Your task to perform on an android device: Open Google Maps and go to "Timeline" Image 0: 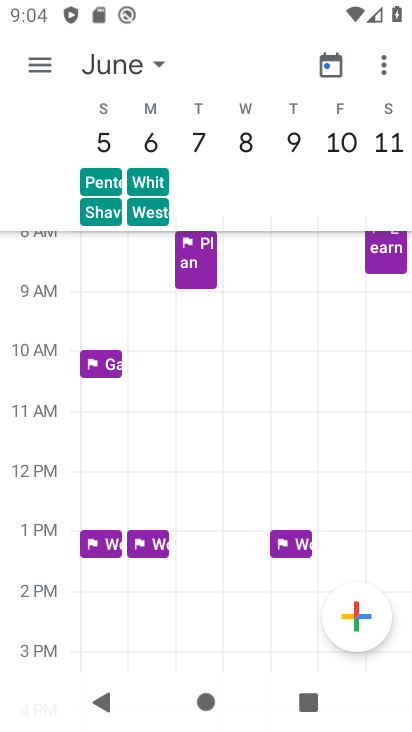
Step 0: press home button
Your task to perform on an android device: Open Google Maps and go to "Timeline" Image 1: 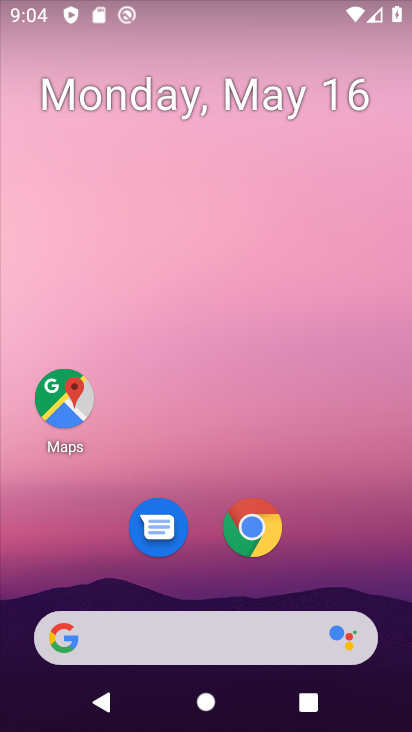
Step 1: click (57, 401)
Your task to perform on an android device: Open Google Maps and go to "Timeline" Image 2: 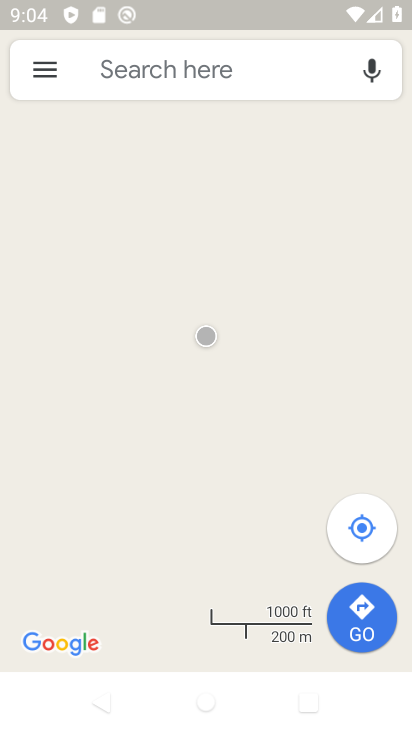
Step 2: click (51, 77)
Your task to perform on an android device: Open Google Maps and go to "Timeline" Image 3: 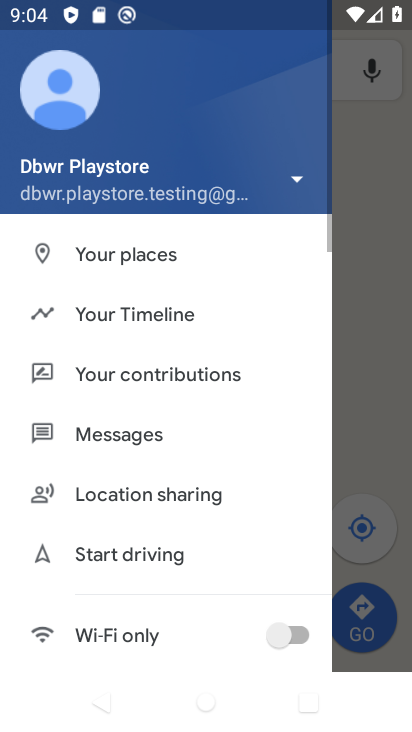
Step 3: click (120, 322)
Your task to perform on an android device: Open Google Maps and go to "Timeline" Image 4: 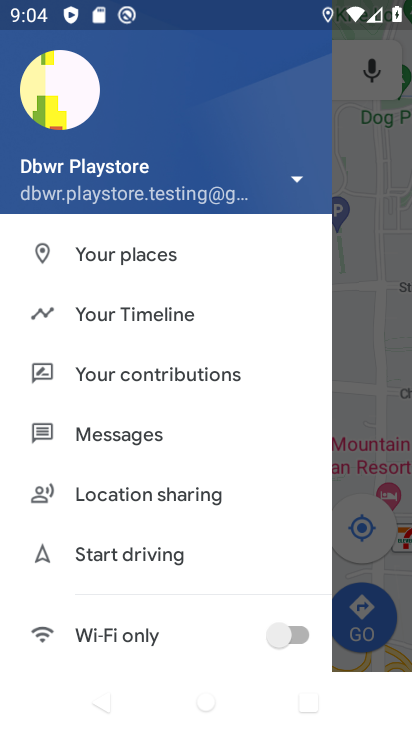
Step 4: click (120, 323)
Your task to perform on an android device: Open Google Maps and go to "Timeline" Image 5: 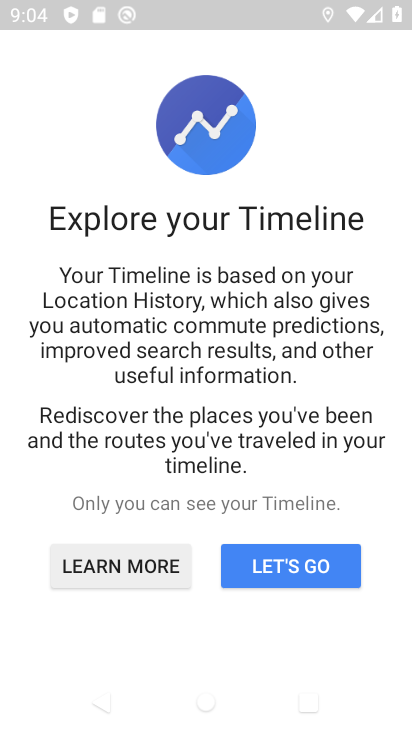
Step 5: click (302, 575)
Your task to perform on an android device: Open Google Maps and go to "Timeline" Image 6: 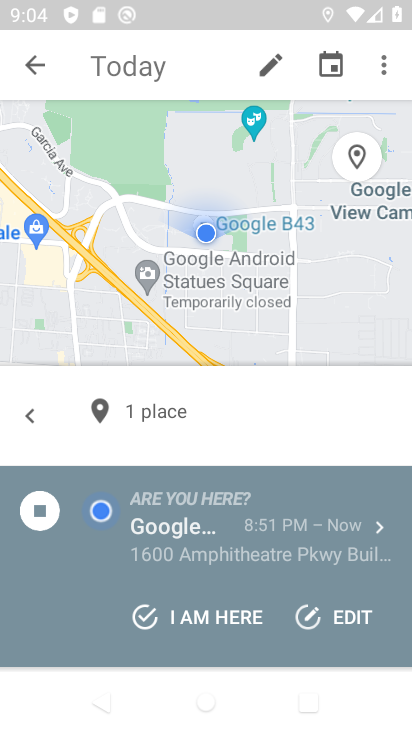
Step 6: task complete